Your task to perform on an android device: Go to CNN.com Image 0: 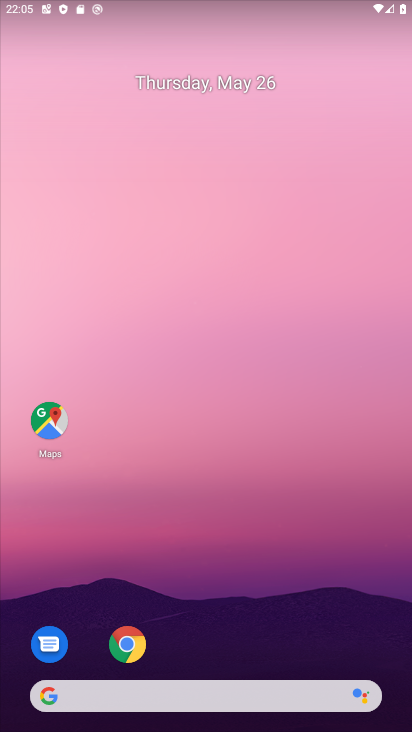
Step 0: drag from (361, 517) to (392, 5)
Your task to perform on an android device: Go to CNN.com Image 1: 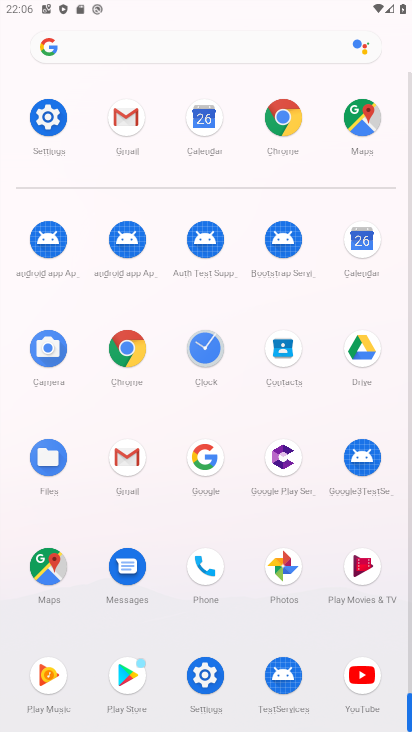
Step 1: click (128, 356)
Your task to perform on an android device: Go to CNN.com Image 2: 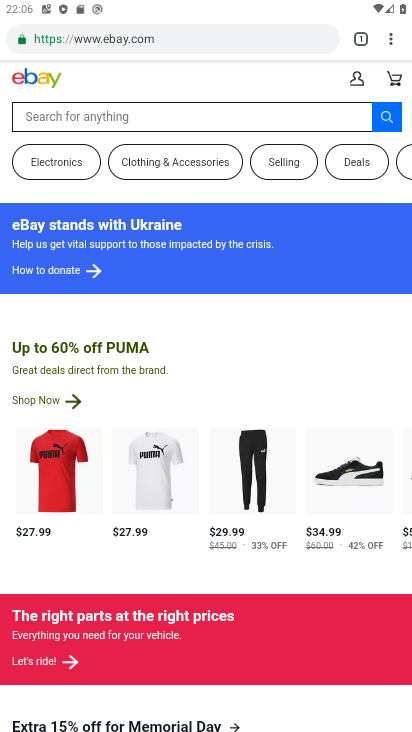
Step 2: click (166, 48)
Your task to perform on an android device: Go to CNN.com Image 3: 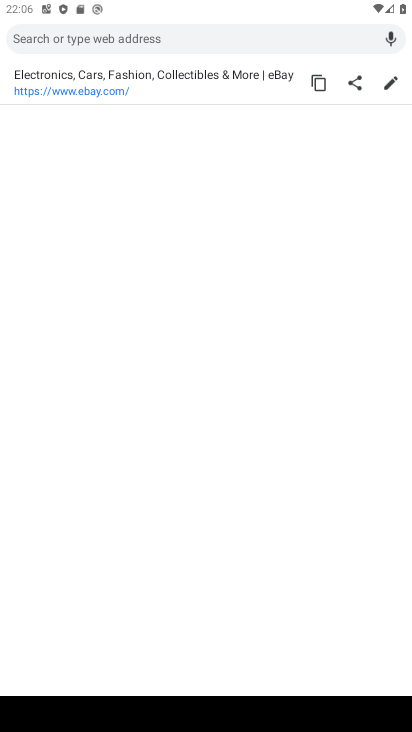
Step 3: type "cnn.com"
Your task to perform on an android device: Go to CNN.com Image 4: 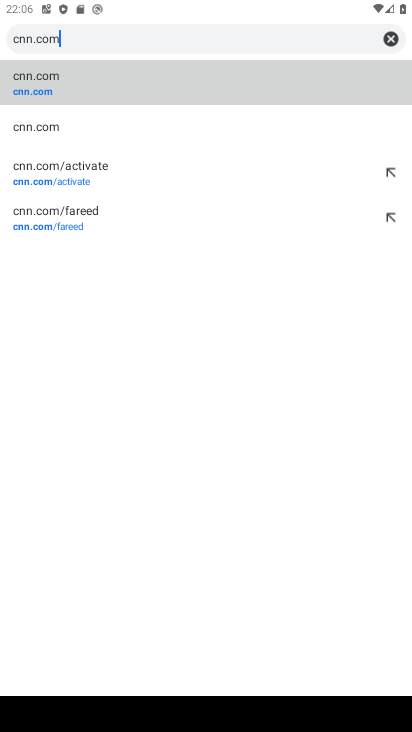
Step 4: click (135, 92)
Your task to perform on an android device: Go to CNN.com Image 5: 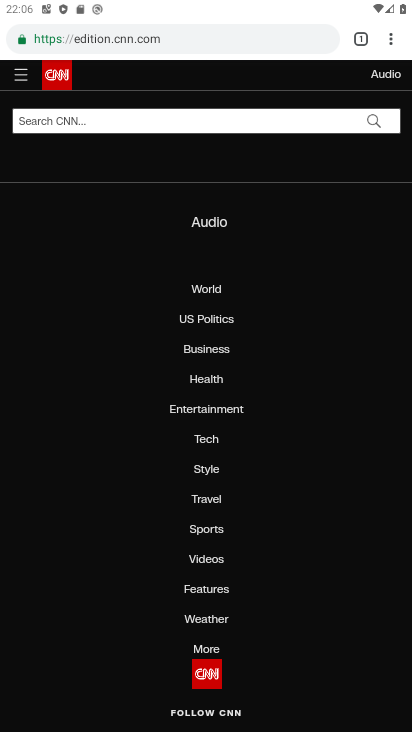
Step 5: task complete